Your task to perform on an android device: turn off improve location accuracy Image 0: 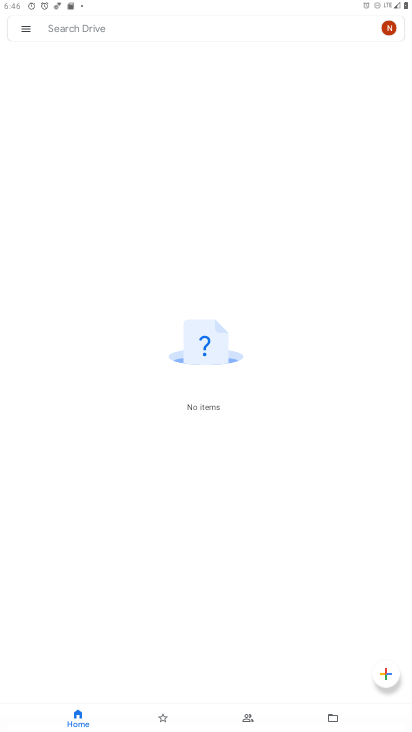
Step 0: press home button
Your task to perform on an android device: turn off improve location accuracy Image 1: 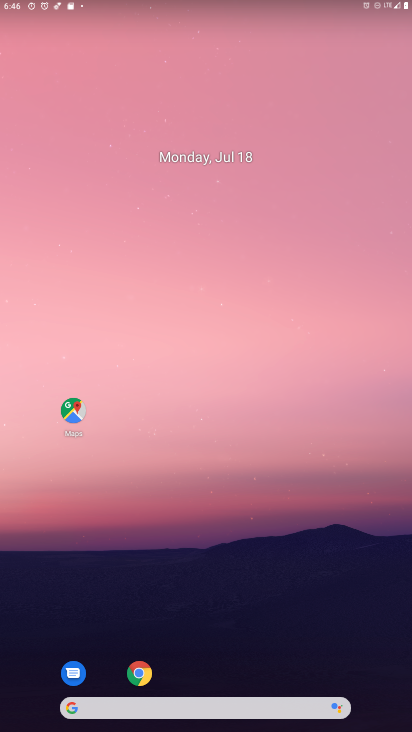
Step 1: drag from (235, 480) to (227, 134)
Your task to perform on an android device: turn off improve location accuracy Image 2: 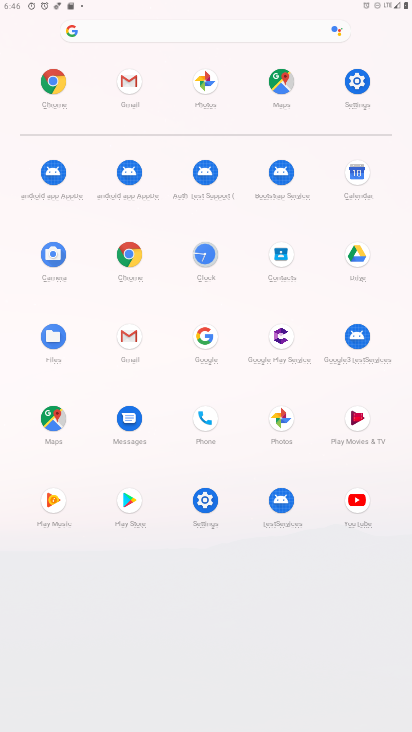
Step 2: click (206, 508)
Your task to perform on an android device: turn off improve location accuracy Image 3: 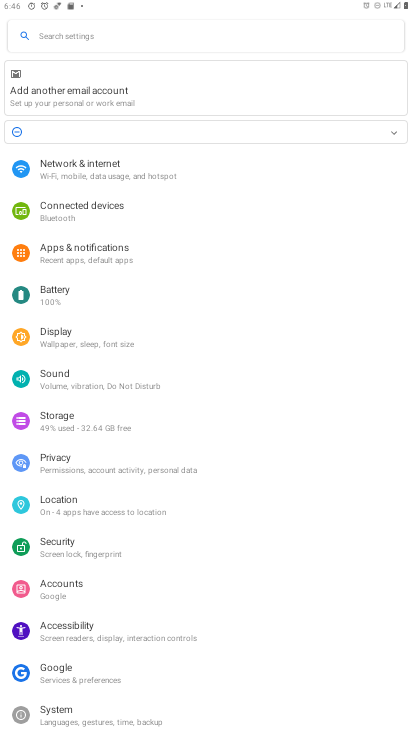
Step 3: click (54, 503)
Your task to perform on an android device: turn off improve location accuracy Image 4: 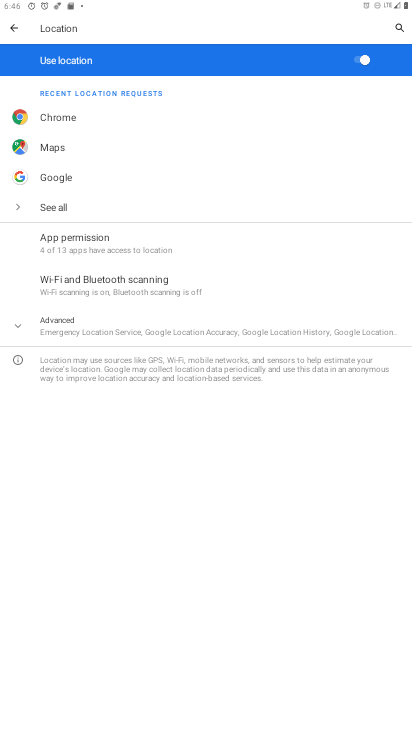
Step 4: click (364, 62)
Your task to perform on an android device: turn off improve location accuracy Image 5: 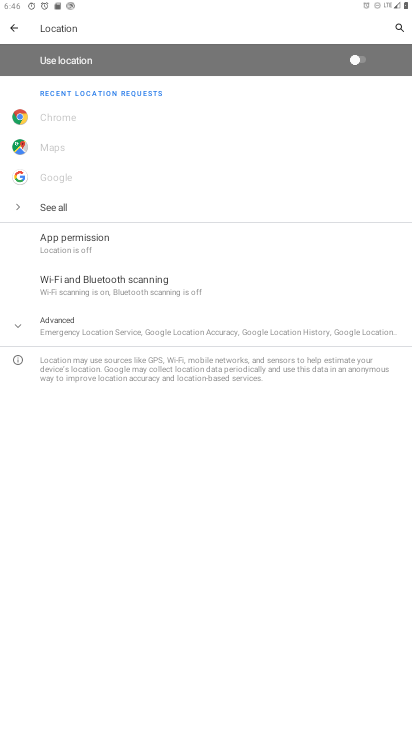
Step 5: task complete